Your task to perform on an android device: toggle notifications settings in the gmail app Image 0: 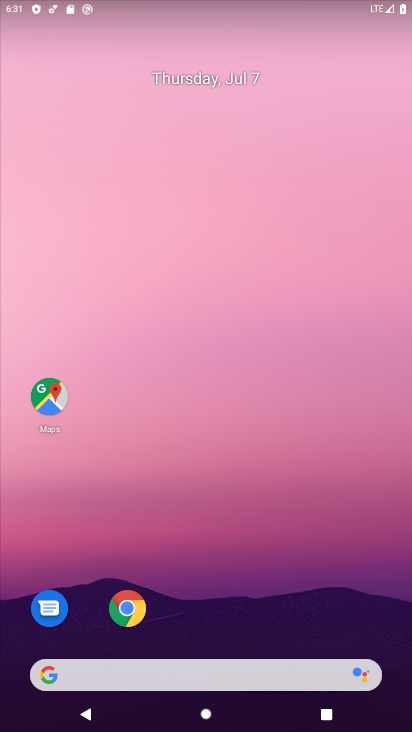
Step 0: drag from (324, 614) to (352, 99)
Your task to perform on an android device: toggle notifications settings in the gmail app Image 1: 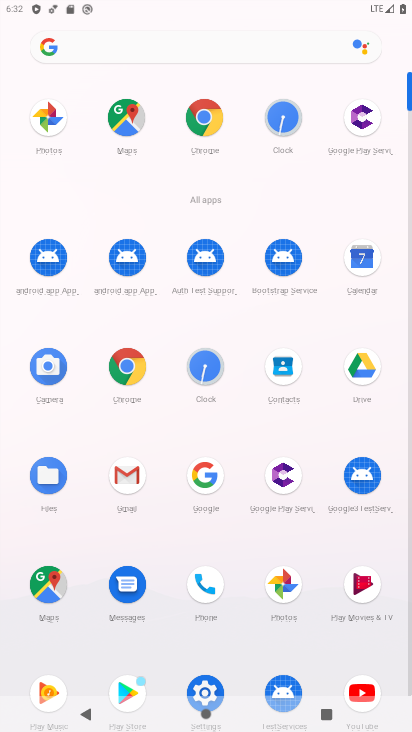
Step 1: click (138, 471)
Your task to perform on an android device: toggle notifications settings in the gmail app Image 2: 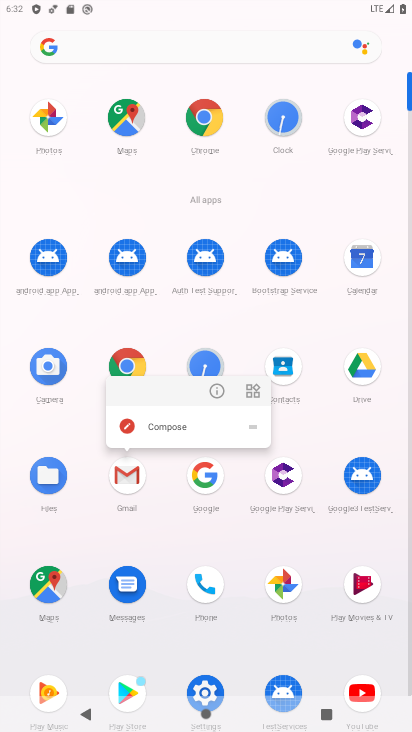
Step 2: click (208, 389)
Your task to perform on an android device: toggle notifications settings in the gmail app Image 3: 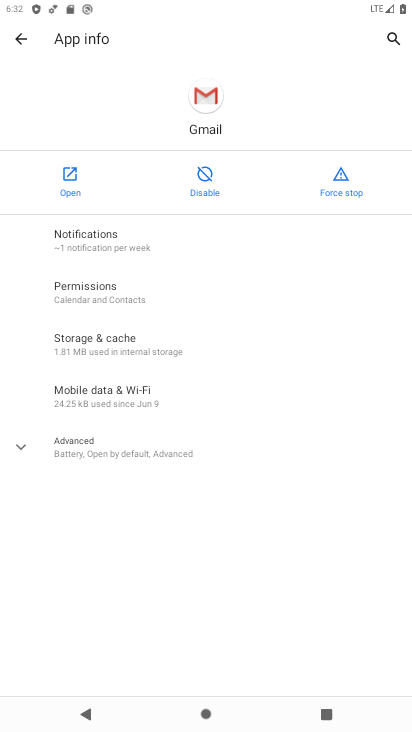
Step 3: click (147, 242)
Your task to perform on an android device: toggle notifications settings in the gmail app Image 4: 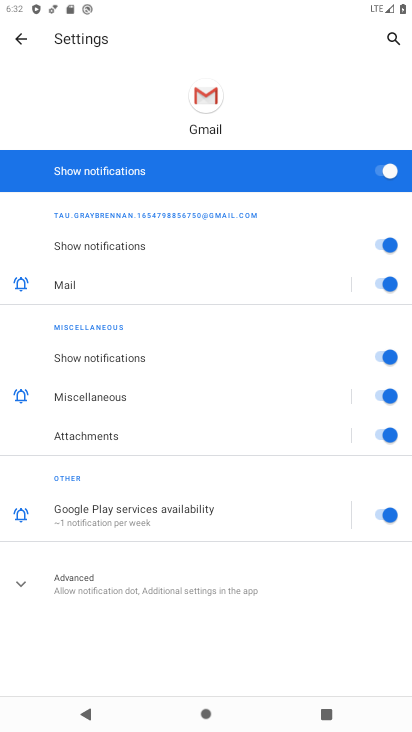
Step 4: click (218, 176)
Your task to perform on an android device: toggle notifications settings in the gmail app Image 5: 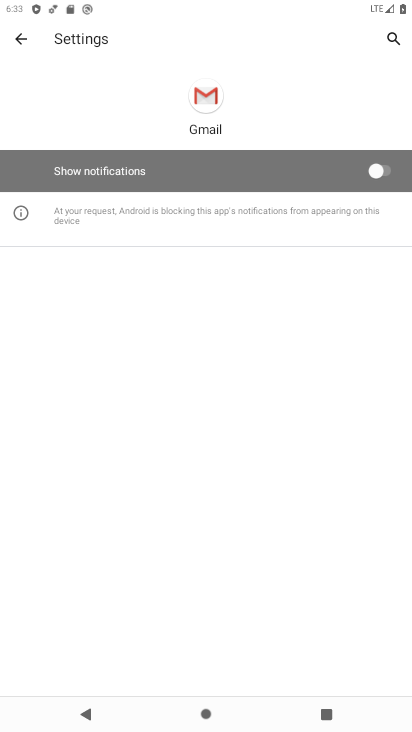
Step 5: task complete